Your task to perform on an android device: Search for seafood restaurants on Google Maps Image 0: 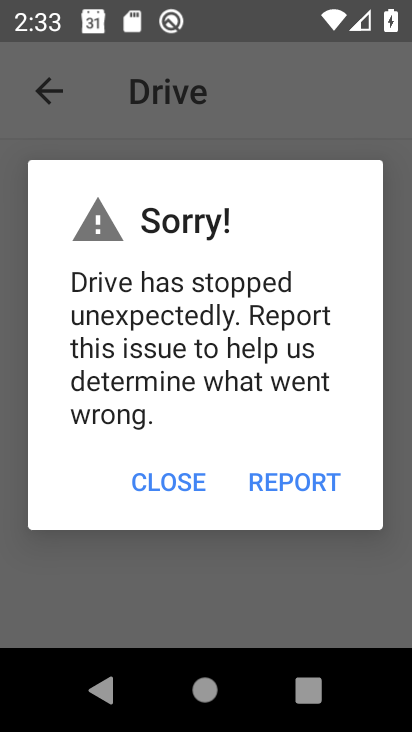
Step 0: press home button
Your task to perform on an android device: Search for seafood restaurants on Google Maps Image 1: 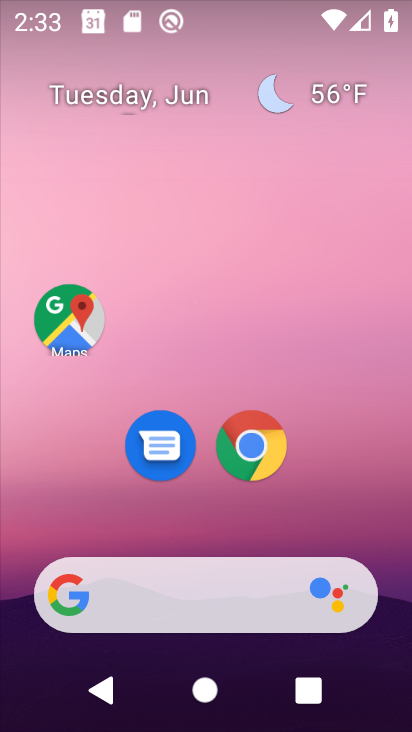
Step 1: click (77, 330)
Your task to perform on an android device: Search for seafood restaurants on Google Maps Image 2: 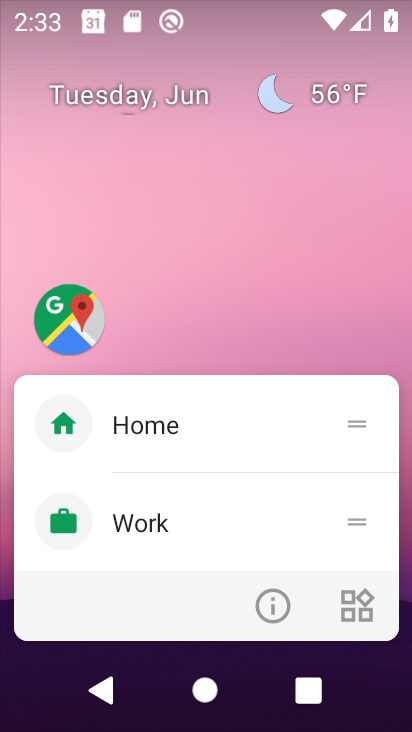
Step 2: click (77, 330)
Your task to perform on an android device: Search for seafood restaurants on Google Maps Image 3: 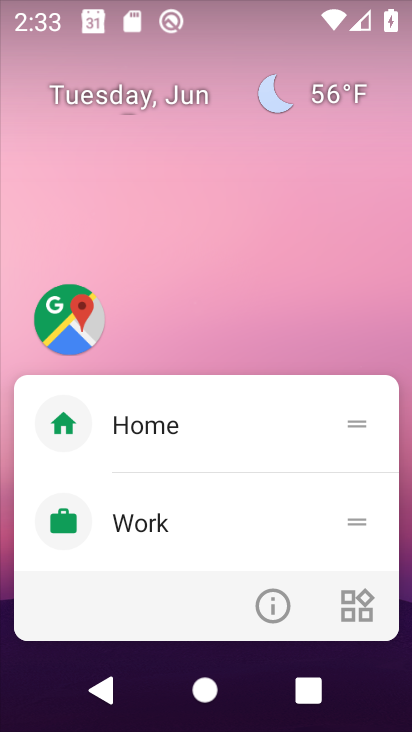
Step 3: click (77, 330)
Your task to perform on an android device: Search for seafood restaurants on Google Maps Image 4: 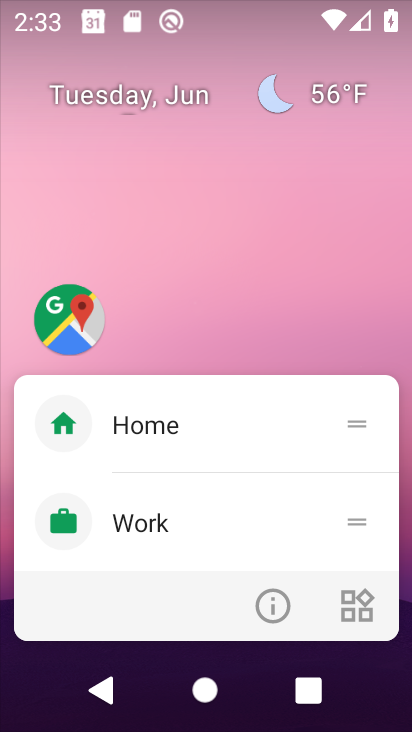
Step 4: click (77, 330)
Your task to perform on an android device: Search for seafood restaurants on Google Maps Image 5: 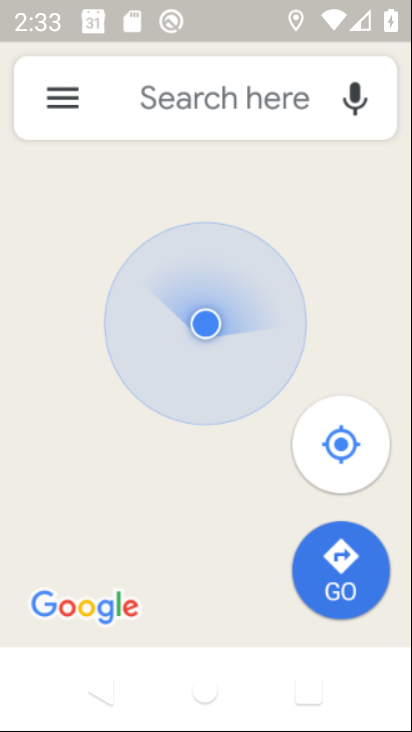
Step 5: click (271, 88)
Your task to perform on an android device: Search for seafood restaurants on Google Maps Image 6: 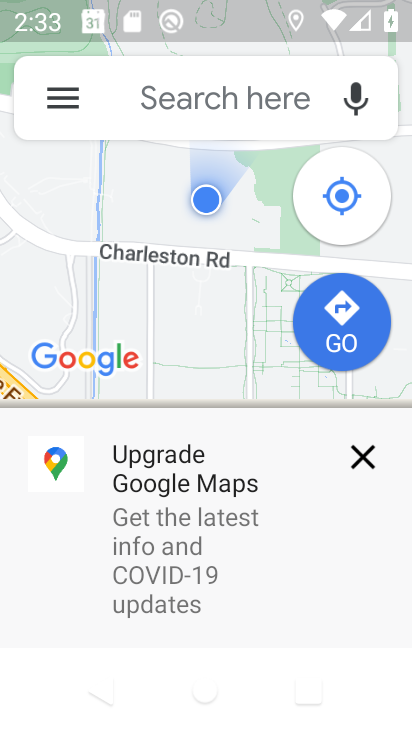
Step 6: click (218, 94)
Your task to perform on an android device: Search for seafood restaurants on Google Maps Image 7: 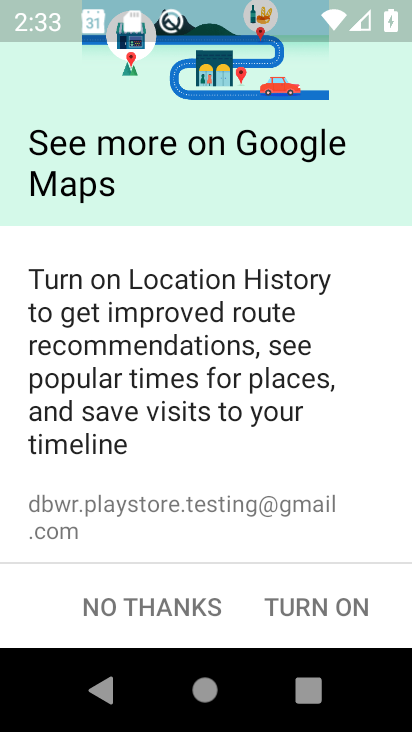
Step 7: click (190, 624)
Your task to perform on an android device: Search for seafood restaurants on Google Maps Image 8: 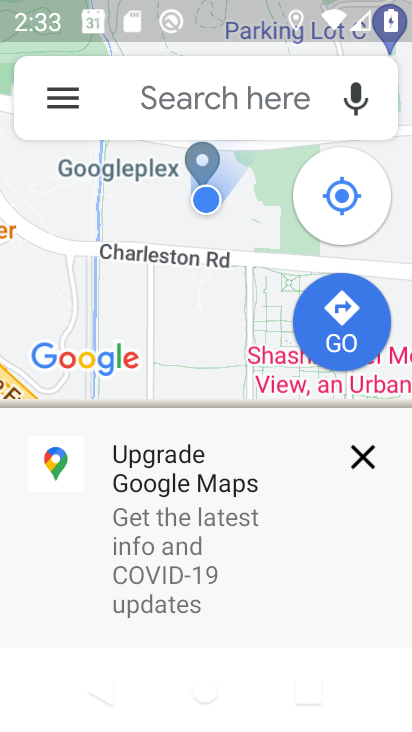
Step 8: click (276, 108)
Your task to perform on an android device: Search for seafood restaurants on Google Maps Image 9: 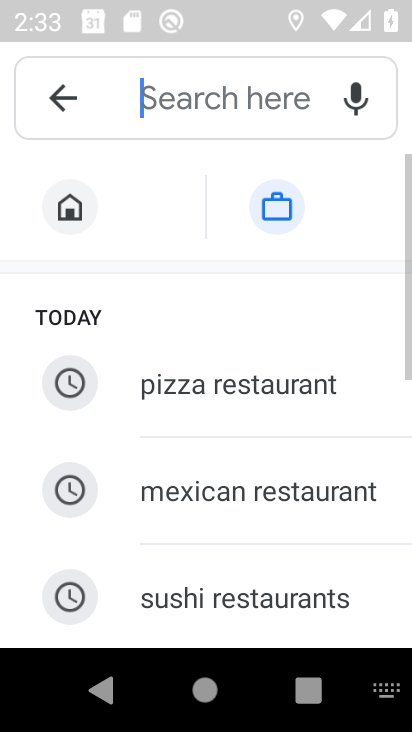
Step 9: drag from (220, 604) to (248, 157)
Your task to perform on an android device: Search for seafood restaurants on Google Maps Image 10: 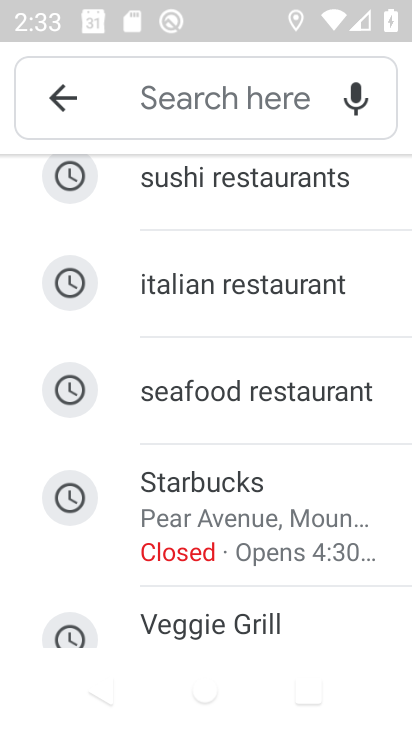
Step 10: click (285, 408)
Your task to perform on an android device: Search for seafood restaurants on Google Maps Image 11: 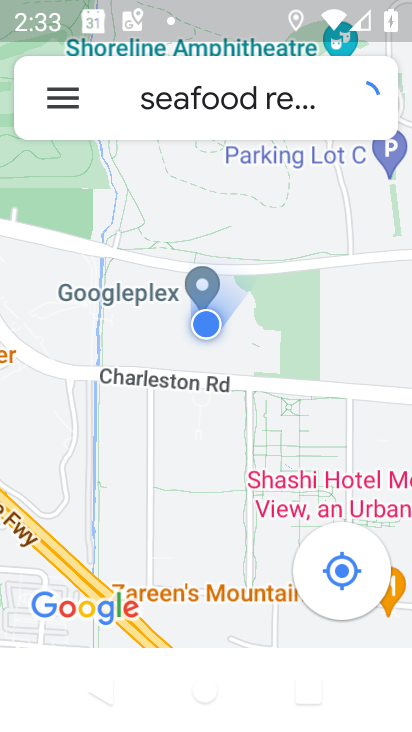
Step 11: task complete